Your task to perform on an android device: toggle wifi Image 0: 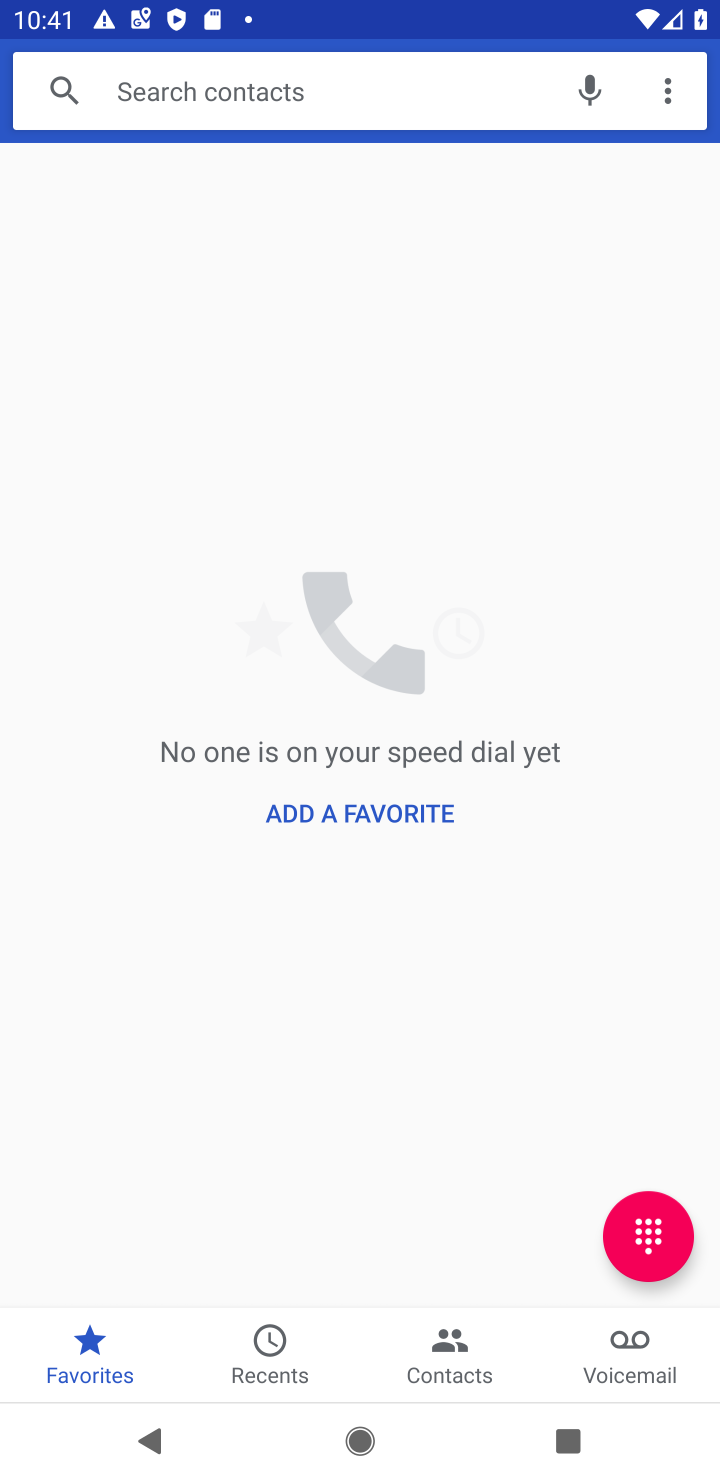
Step 0: press home button
Your task to perform on an android device: toggle wifi Image 1: 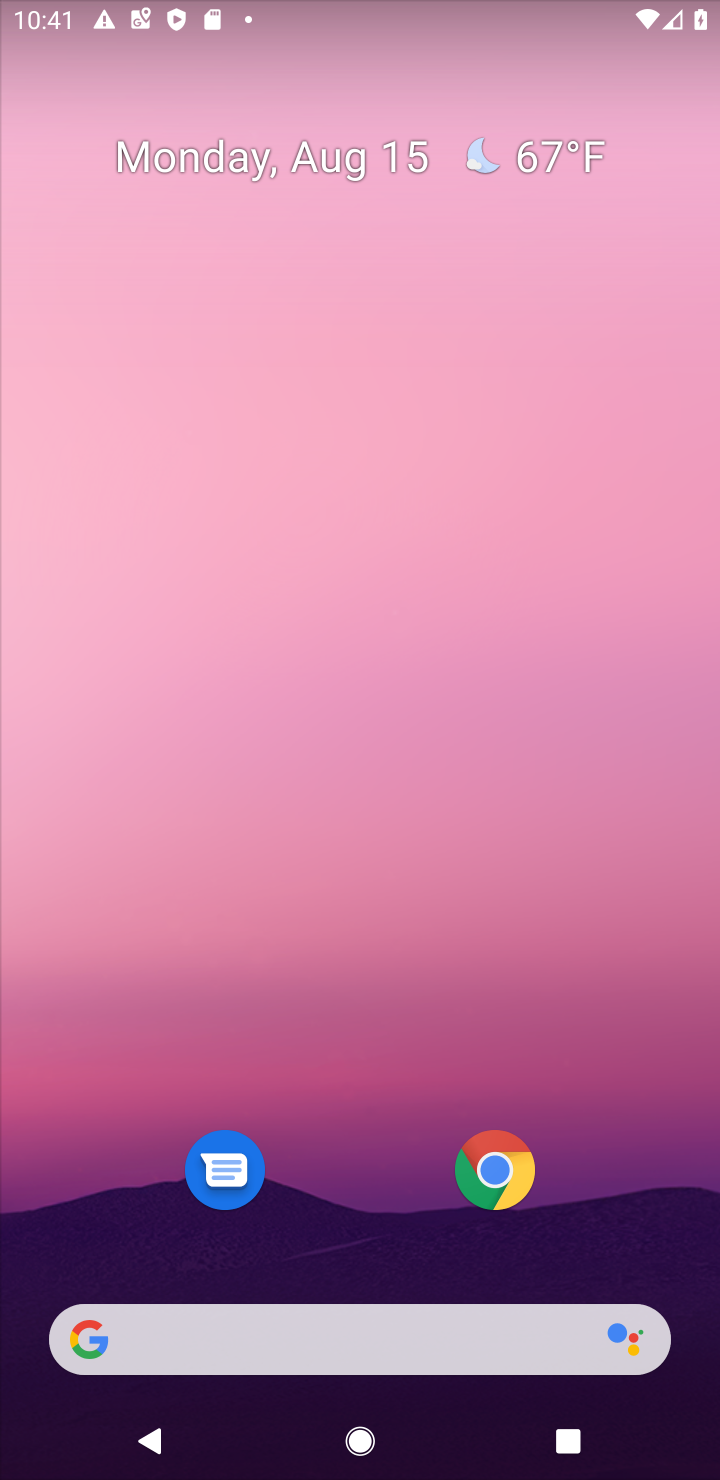
Step 1: drag from (374, 1276) to (624, 92)
Your task to perform on an android device: toggle wifi Image 2: 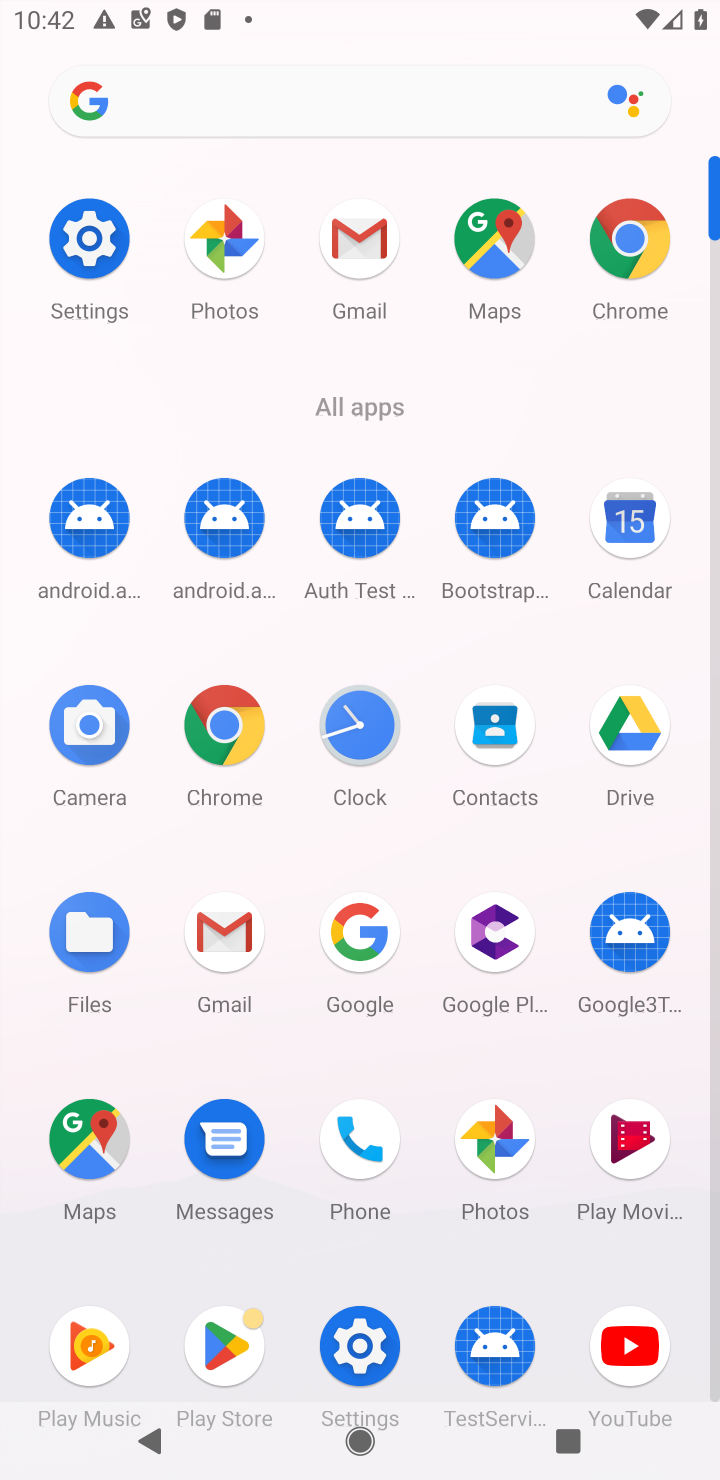
Step 2: click (77, 232)
Your task to perform on an android device: toggle wifi Image 3: 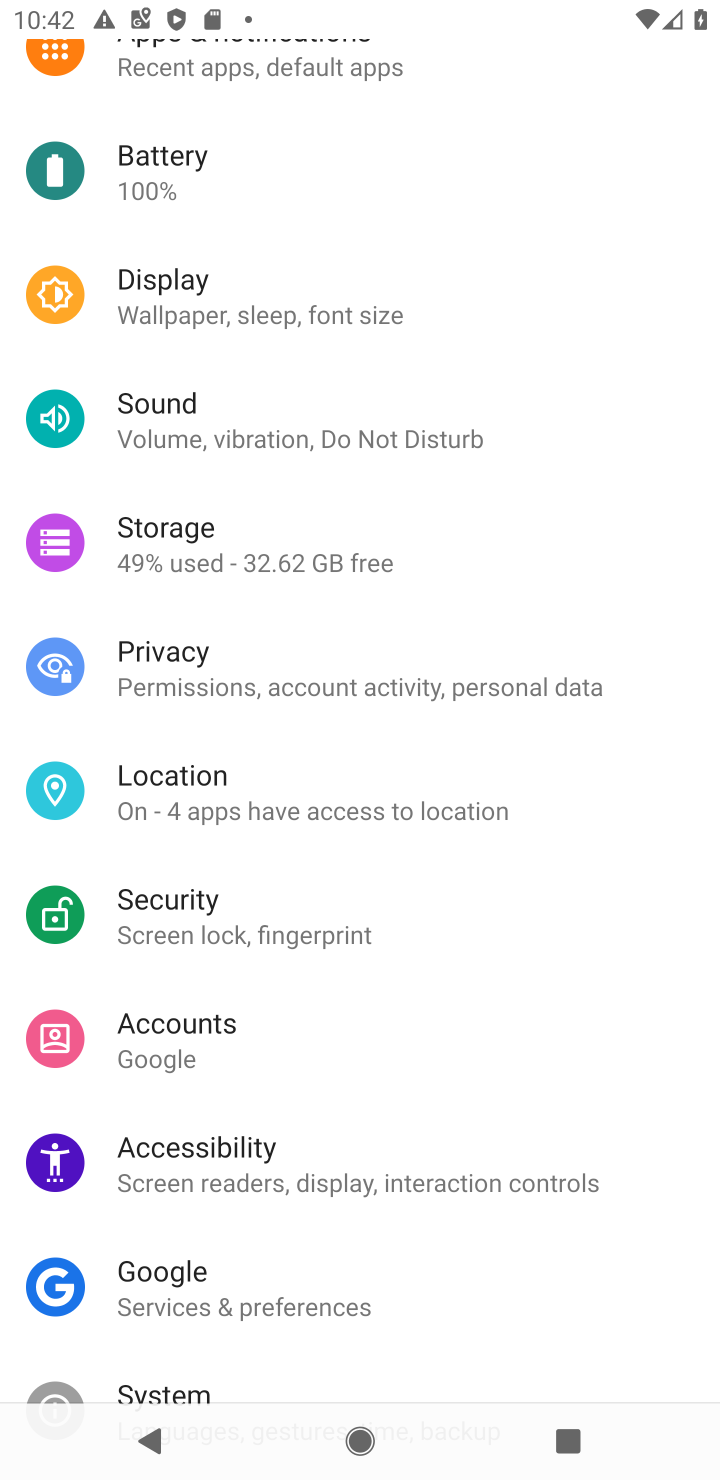
Step 3: drag from (261, 216) to (322, 1401)
Your task to perform on an android device: toggle wifi Image 4: 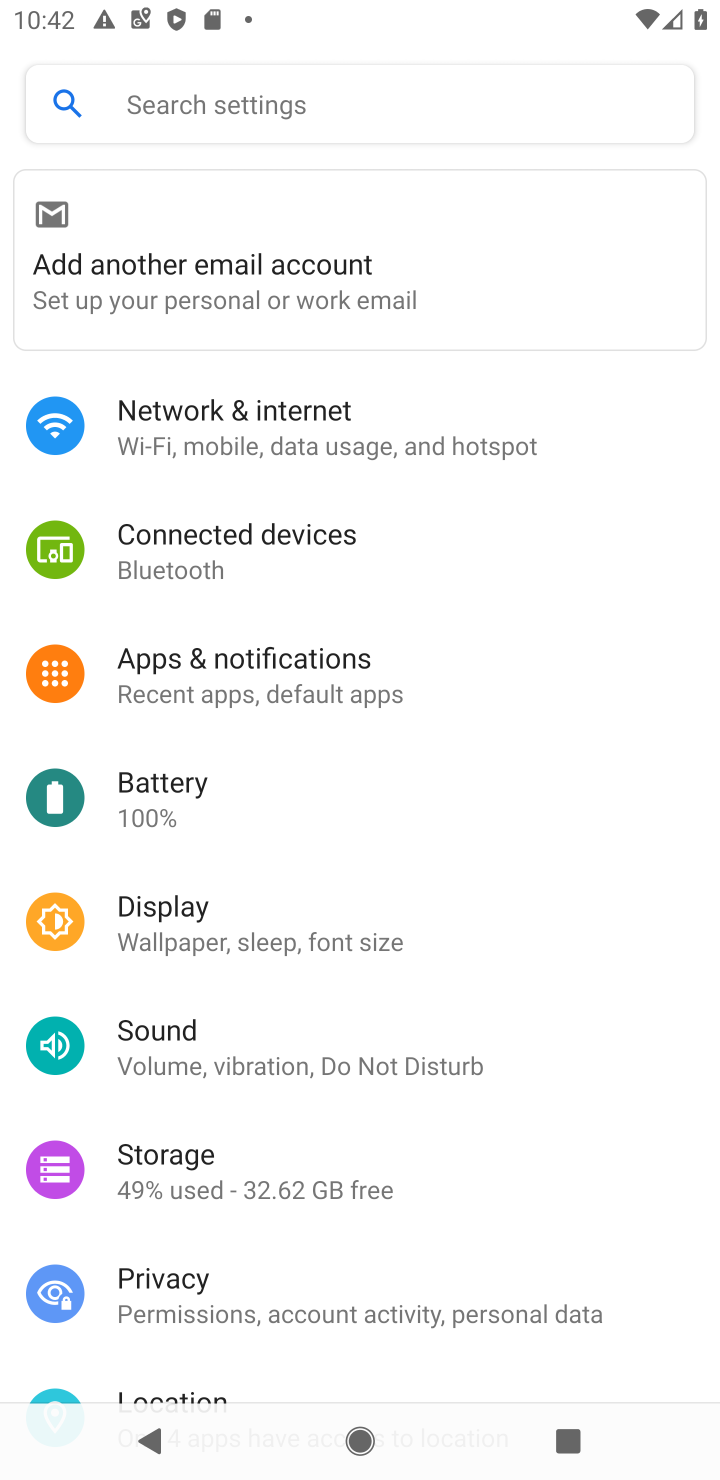
Step 4: click (365, 413)
Your task to perform on an android device: toggle wifi Image 5: 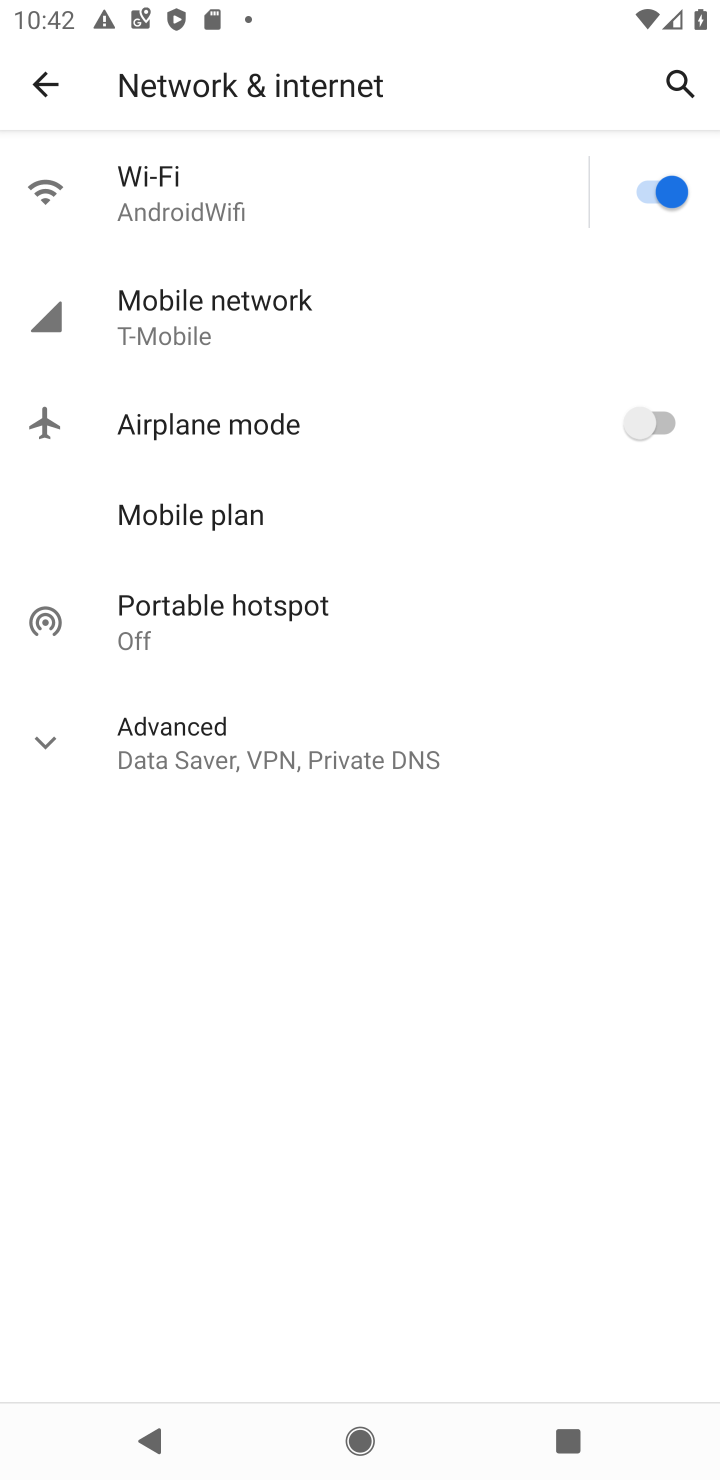
Step 5: click (652, 182)
Your task to perform on an android device: toggle wifi Image 6: 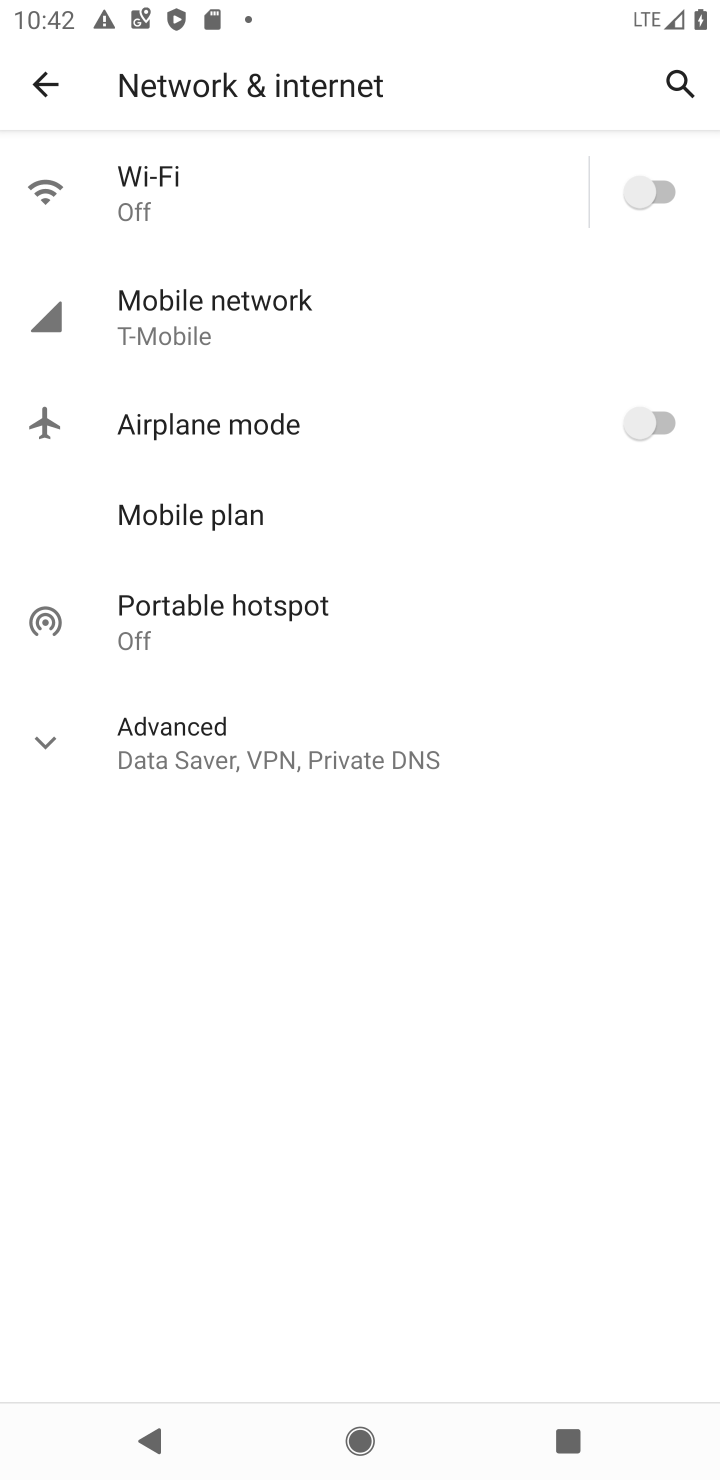
Step 6: task complete